Your task to perform on an android device: What is the news today? Image 0: 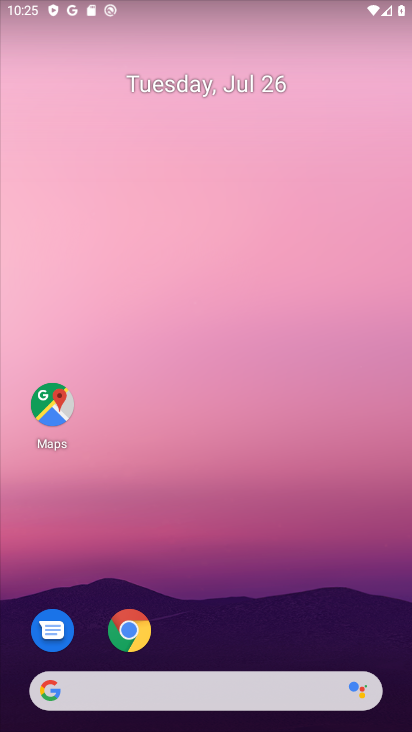
Step 0: click (281, 696)
Your task to perform on an android device: What is the news today? Image 1: 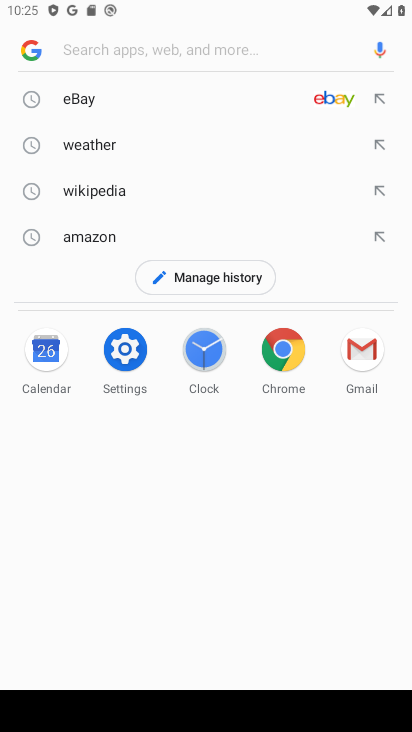
Step 1: click (169, 42)
Your task to perform on an android device: What is the news today? Image 2: 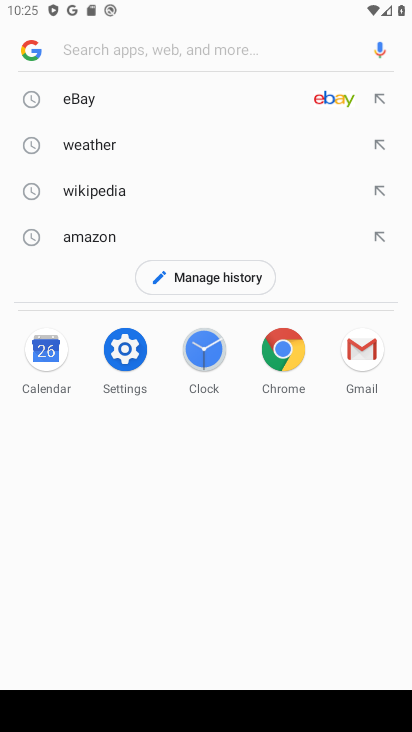
Step 2: type "news today"
Your task to perform on an android device: What is the news today? Image 3: 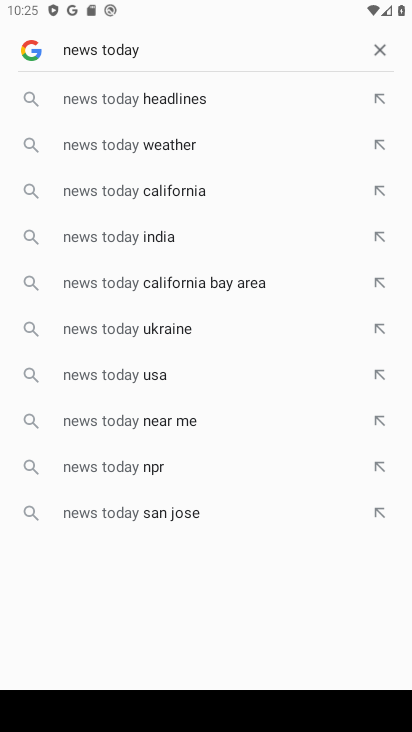
Step 3: press enter
Your task to perform on an android device: What is the news today? Image 4: 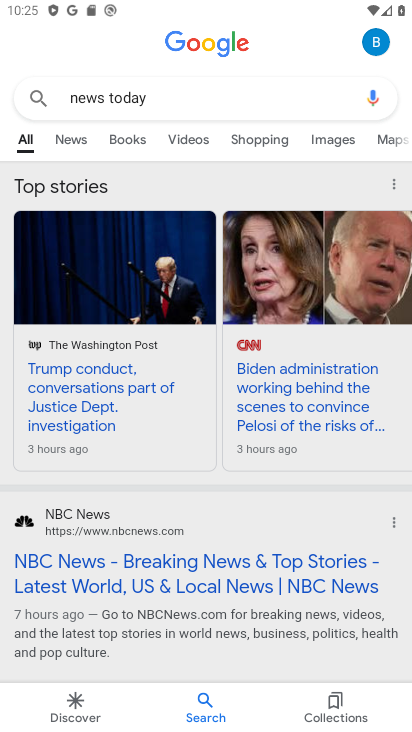
Step 4: task complete